Your task to perform on an android device: turn off sleep mode Image 0: 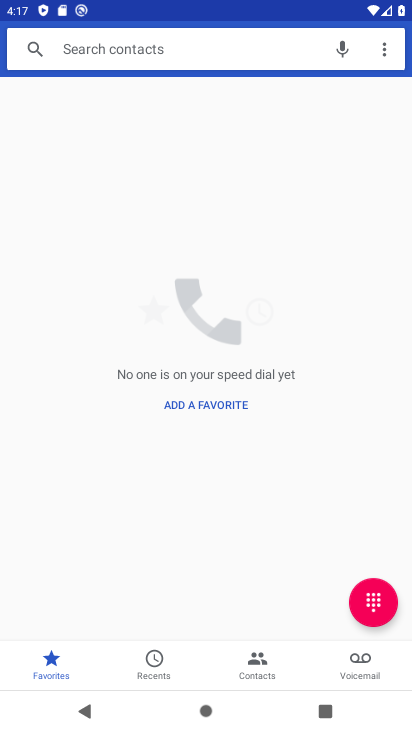
Step 0: press back button
Your task to perform on an android device: turn off sleep mode Image 1: 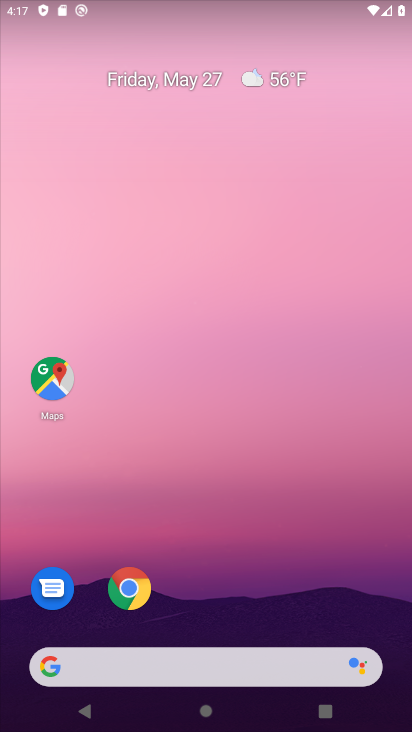
Step 1: click (263, 97)
Your task to perform on an android device: turn off sleep mode Image 2: 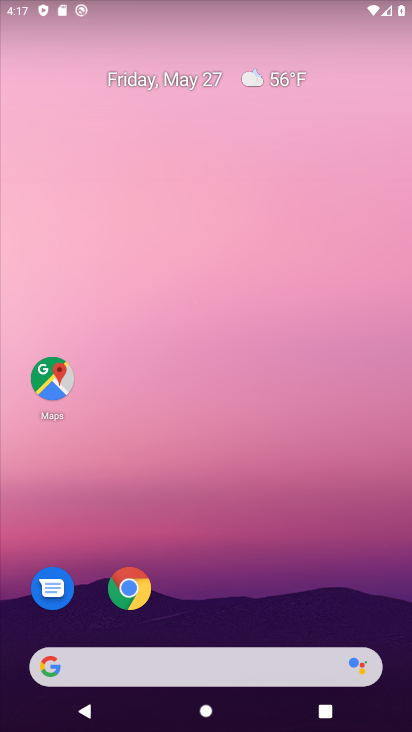
Step 2: drag from (255, 612) to (271, 32)
Your task to perform on an android device: turn off sleep mode Image 3: 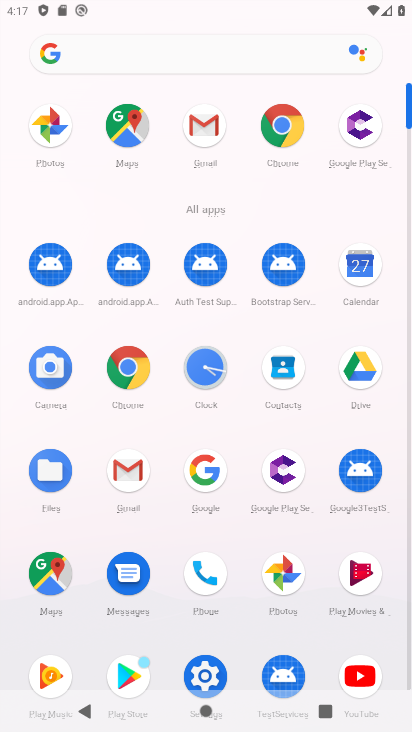
Step 3: click (199, 663)
Your task to perform on an android device: turn off sleep mode Image 4: 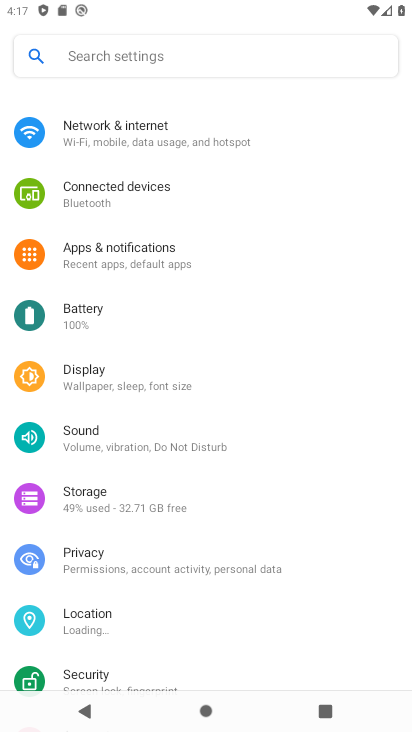
Step 4: click (113, 58)
Your task to perform on an android device: turn off sleep mode Image 5: 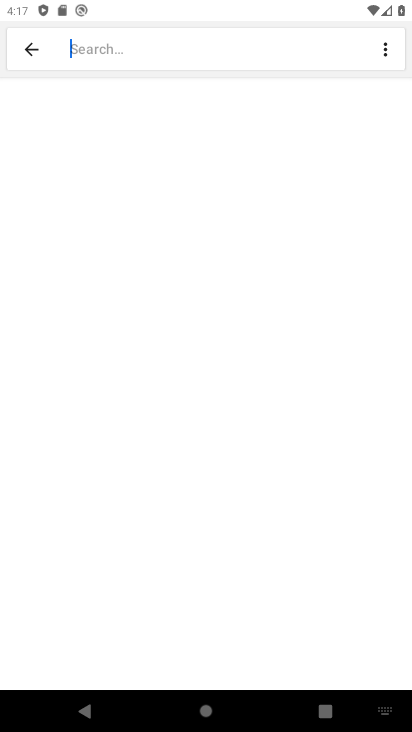
Step 5: type "sleep mode"
Your task to perform on an android device: turn off sleep mode Image 6: 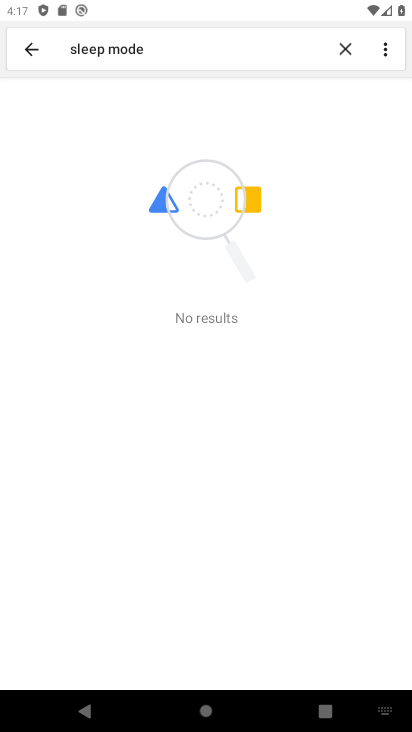
Step 6: task complete